Your task to perform on an android device: Open location settings Image 0: 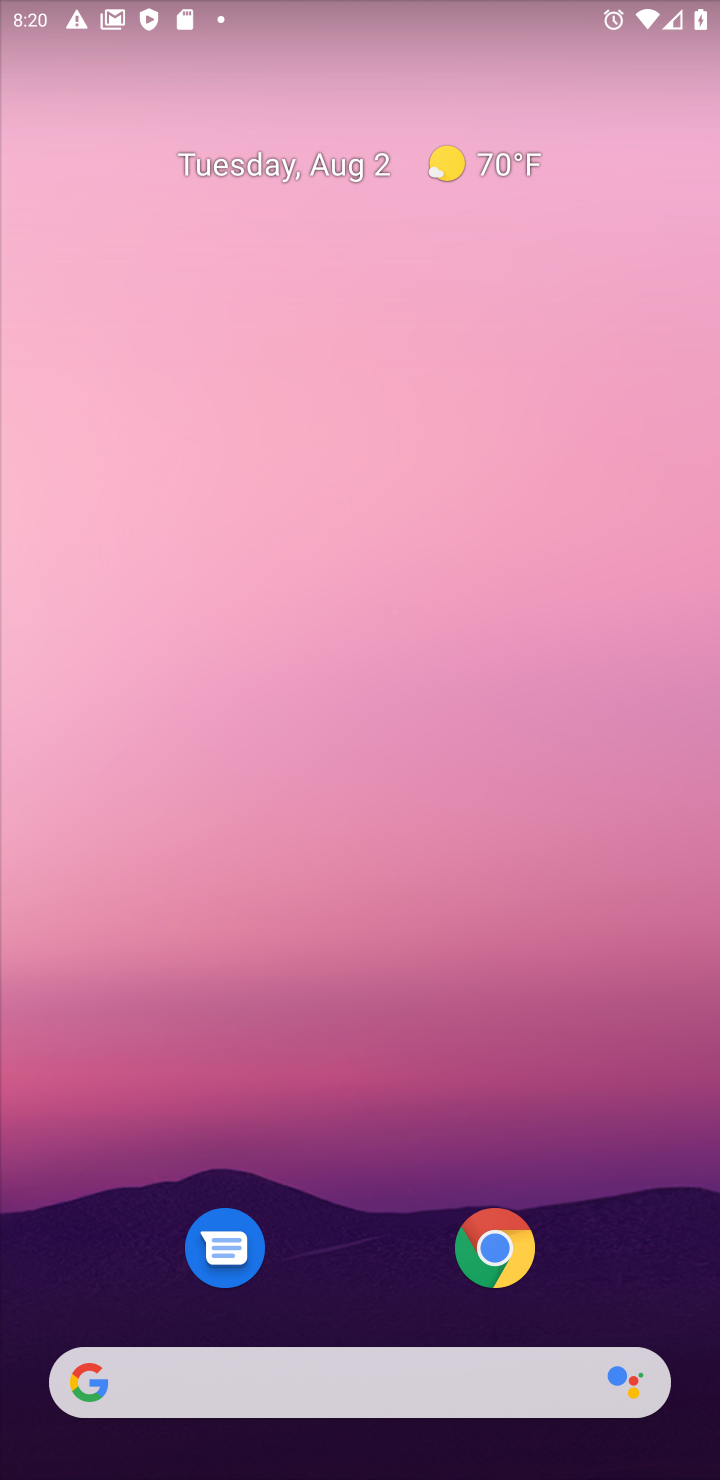
Step 0: drag from (380, 1209) to (495, 140)
Your task to perform on an android device: Open location settings Image 1: 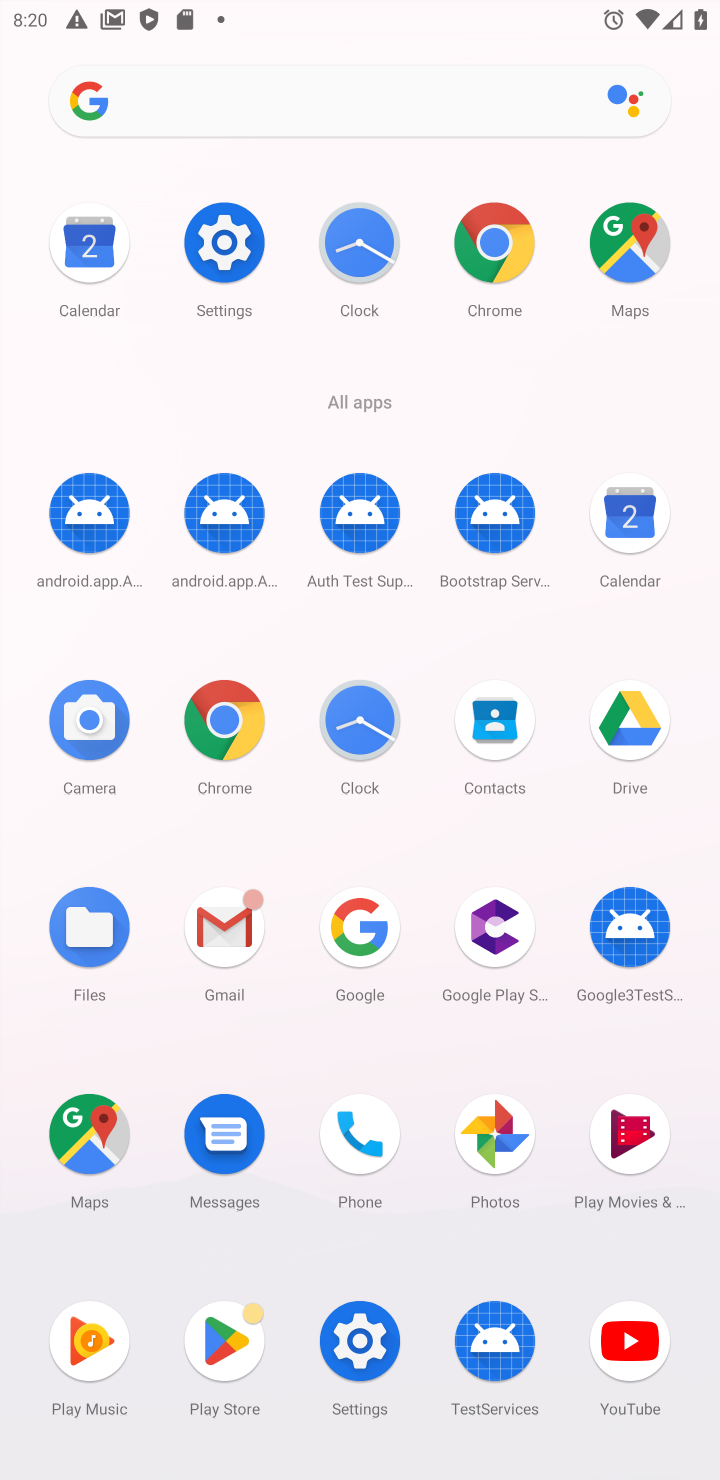
Step 1: click (229, 233)
Your task to perform on an android device: Open location settings Image 2: 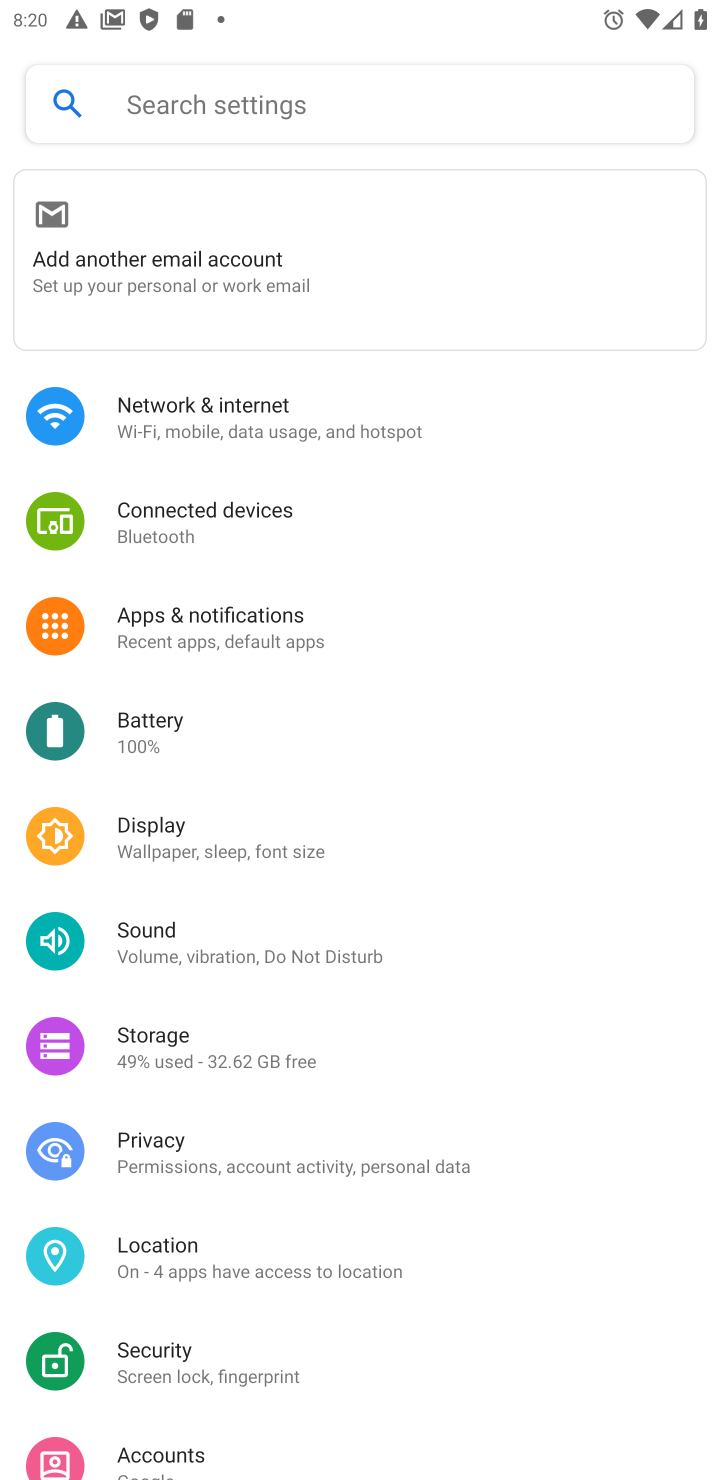
Step 2: click (149, 1250)
Your task to perform on an android device: Open location settings Image 3: 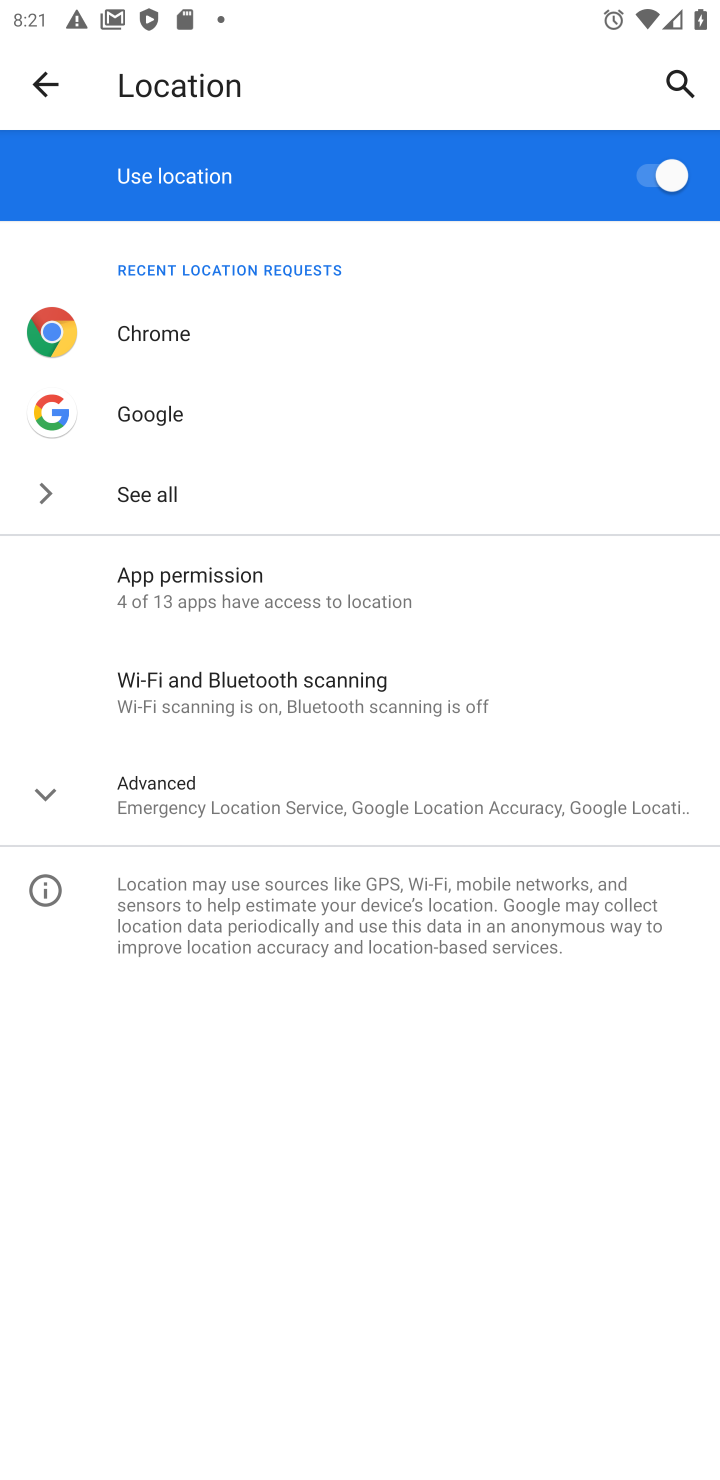
Step 3: task complete